Your task to perform on an android device: Go to calendar. Show me events next week Image 0: 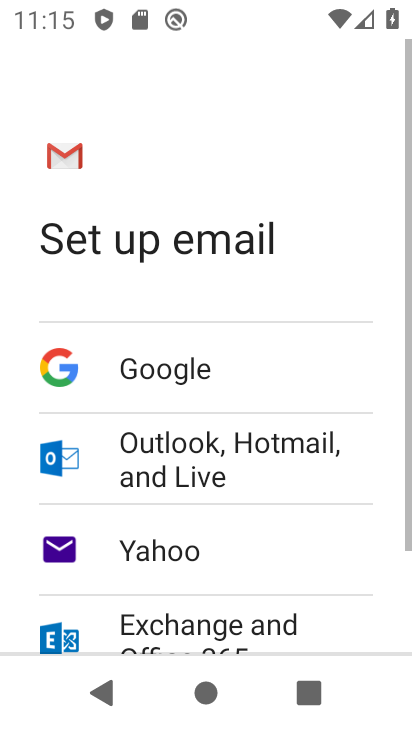
Step 0: press home button
Your task to perform on an android device: Go to calendar. Show me events next week Image 1: 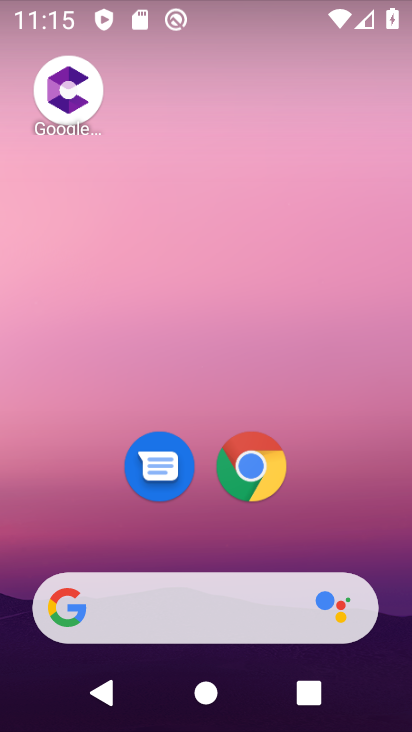
Step 1: drag from (217, 550) to (236, 200)
Your task to perform on an android device: Go to calendar. Show me events next week Image 2: 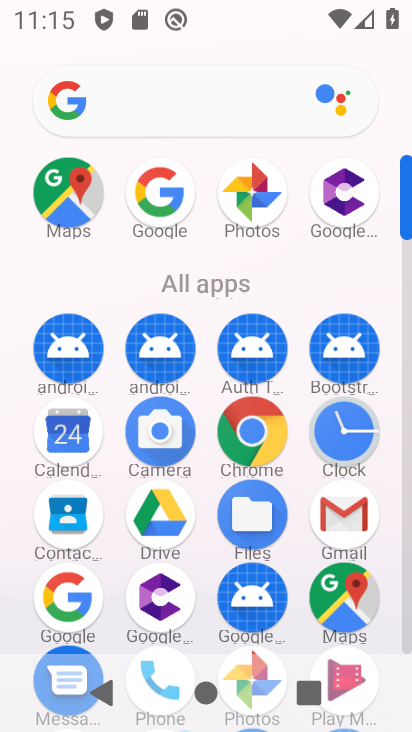
Step 2: click (61, 447)
Your task to perform on an android device: Go to calendar. Show me events next week Image 3: 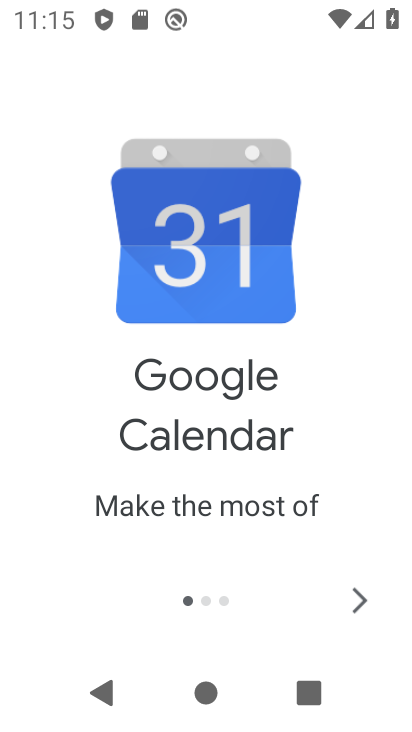
Step 3: click (353, 606)
Your task to perform on an android device: Go to calendar. Show me events next week Image 4: 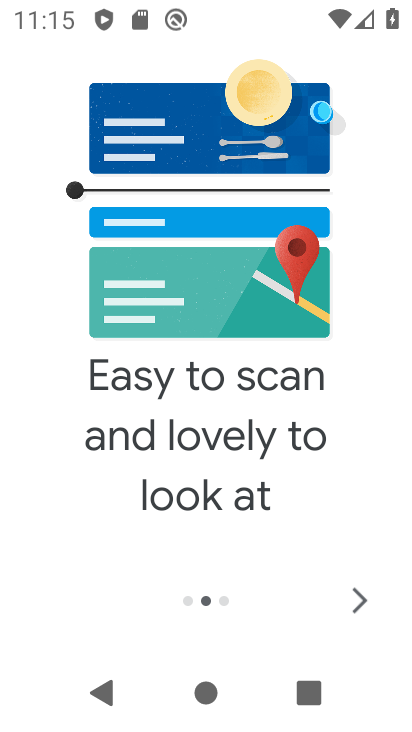
Step 4: click (353, 606)
Your task to perform on an android device: Go to calendar. Show me events next week Image 5: 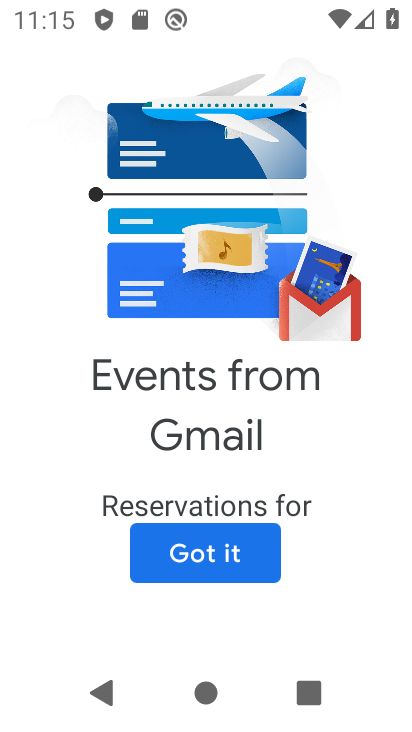
Step 5: click (238, 550)
Your task to perform on an android device: Go to calendar. Show me events next week Image 6: 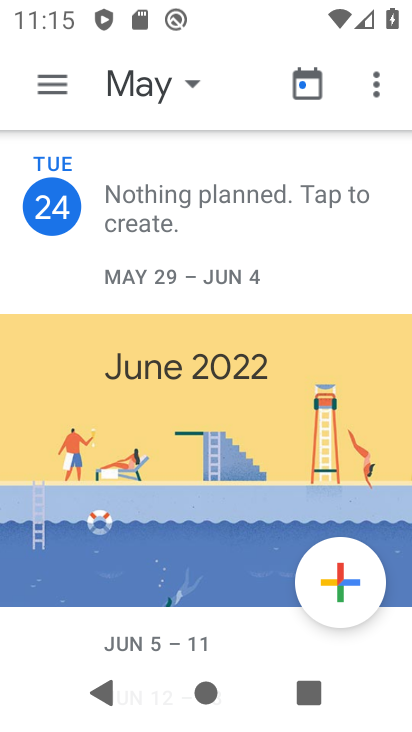
Step 6: click (179, 82)
Your task to perform on an android device: Go to calendar. Show me events next week Image 7: 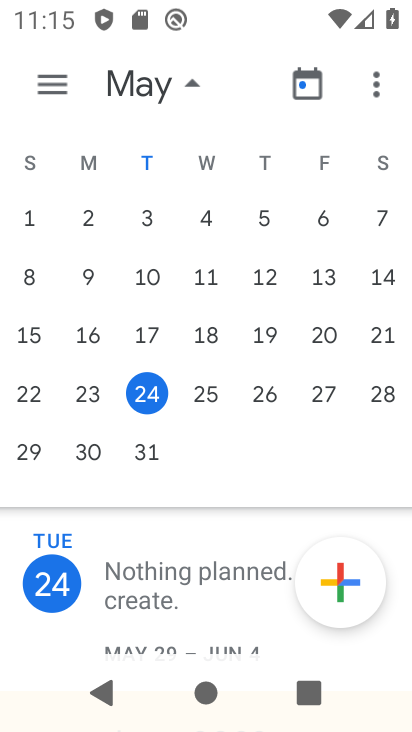
Step 7: click (95, 452)
Your task to perform on an android device: Go to calendar. Show me events next week Image 8: 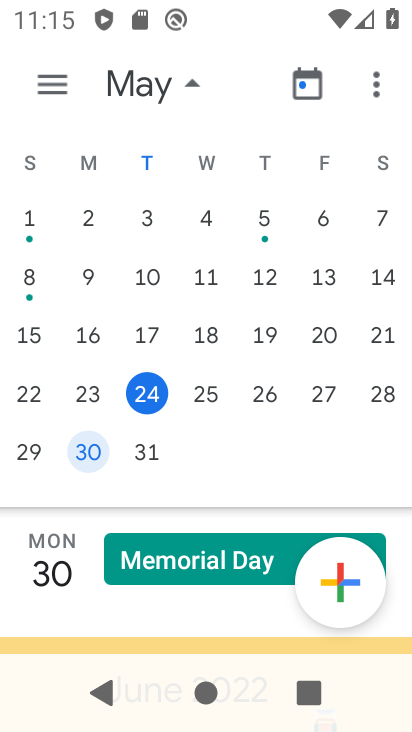
Step 8: task complete